Your task to perform on an android device: Open display settings Image 0: 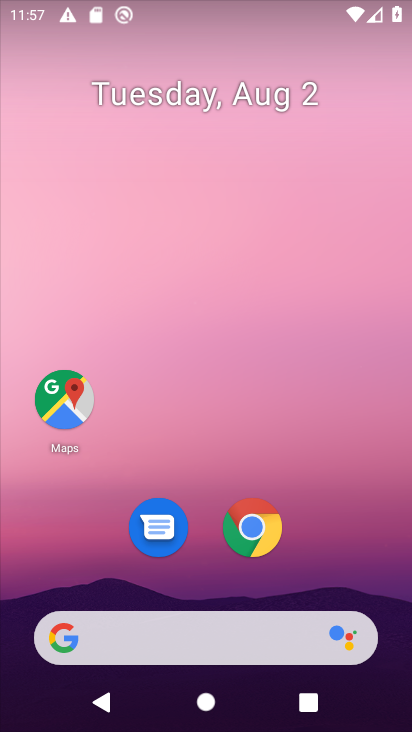
Step 0: drag from (138, 493) to (208, 208)
Your task to perform on an android device: Open display settings Image 1: 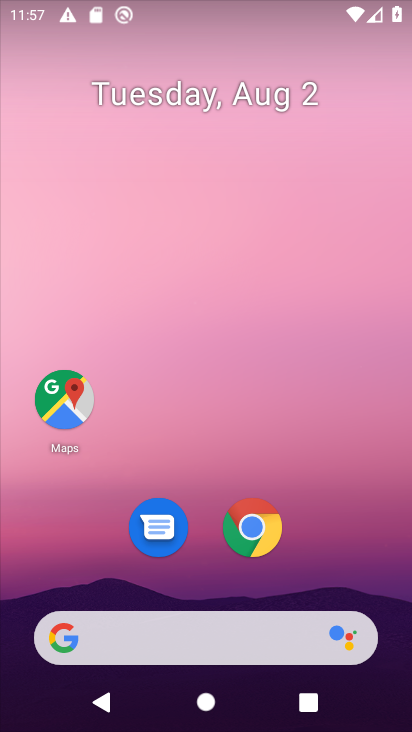
Step 1: drag from (34, 712) to (156, 55)
Your task to perform on an android device: Open display settings Image 2: 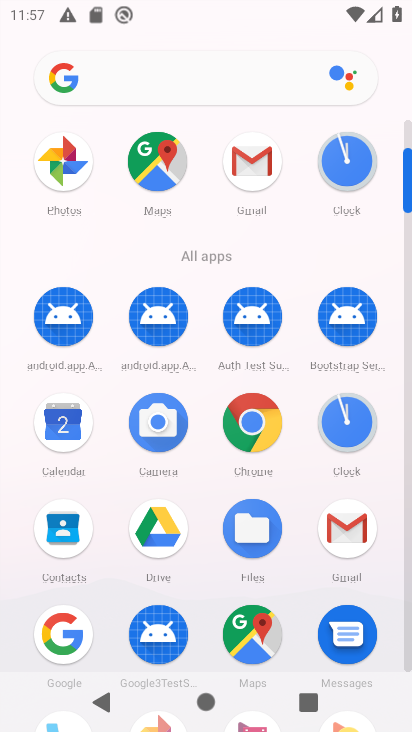
Step 2: drag from (211, 680) to (239, 185)
Your task to perform on an android device: Open display settings Image 3: 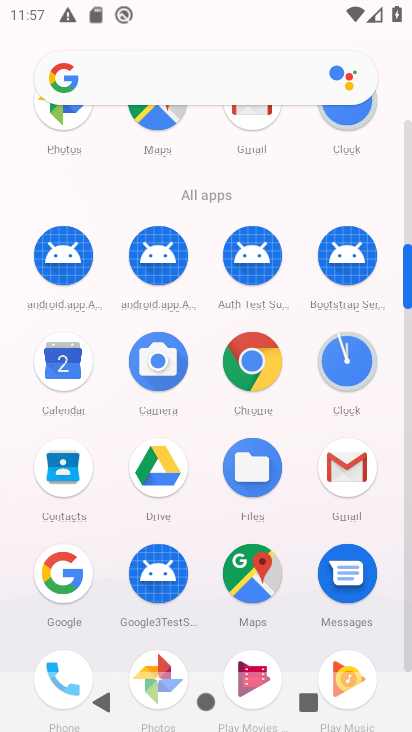
Step 3: drag from (217, 585) to (193, 220)
Your task to perform on an android device: Open display settings Image 4: 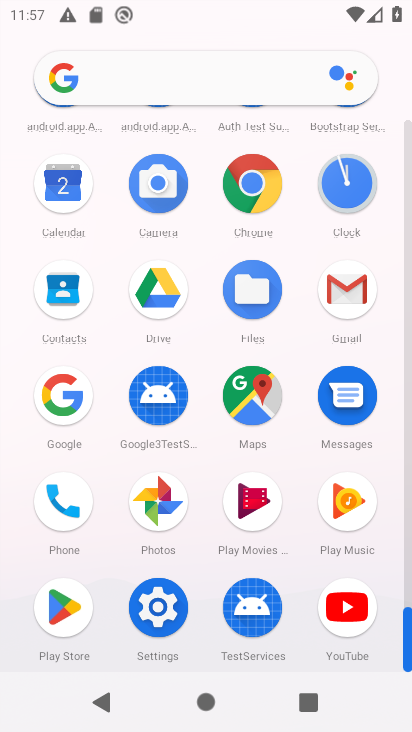
Step 4: click (154, 615)
Your task to perform on an android device: Open display settings Image 5: 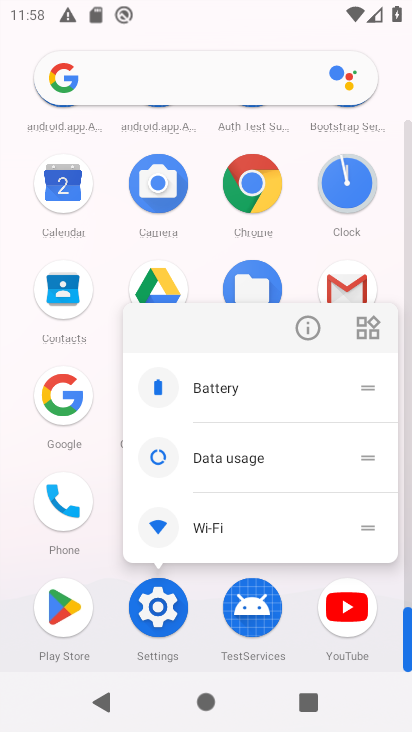
Step 5: click (156, 608)
Your task to perform on an android device: Open display settings Image 6: 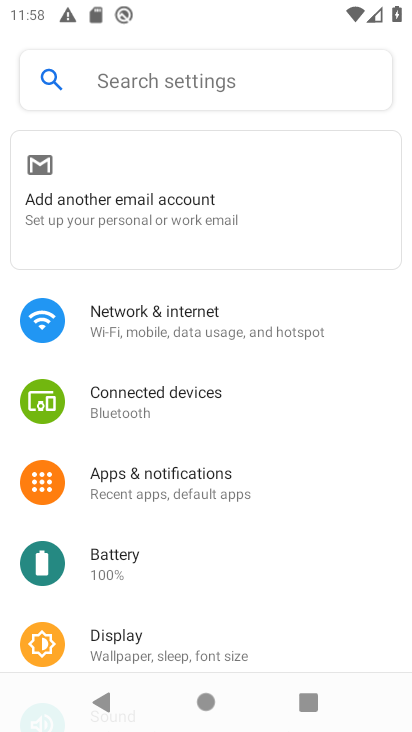
Step 6: click (127, 640)
Your task to perform on an android device: Open display settings Image 7: 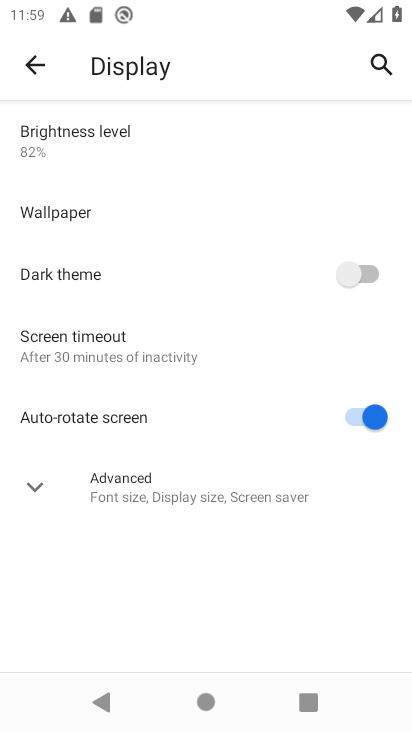
Step 7: task complete